Your task to perform on an android device: toggle pop-ups in chrome Image 0: 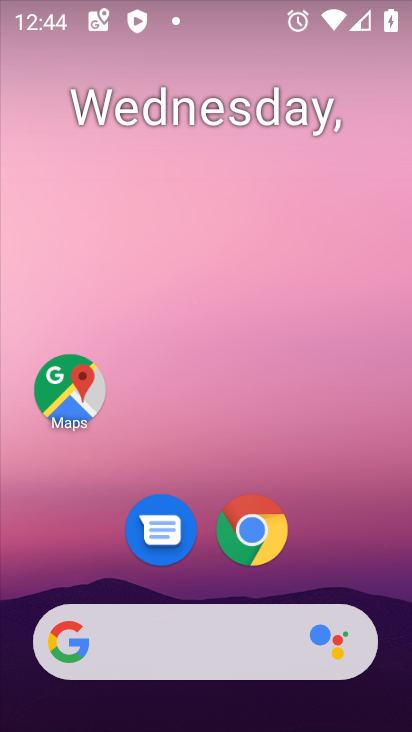
Step 0: click (250, 532)
Your task to perform on an android device: toggle pop-ups in chrome Image 1: 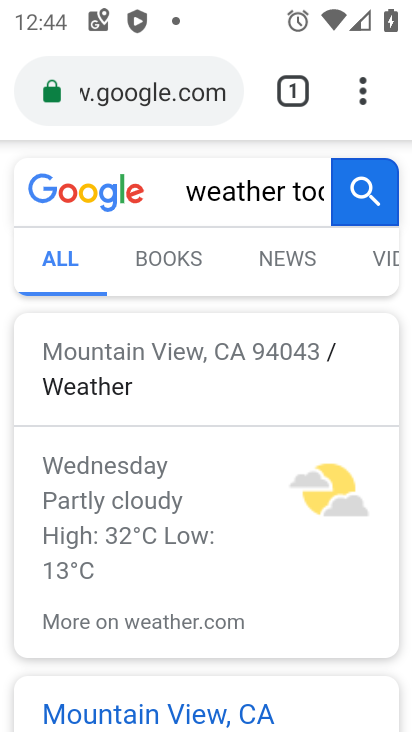
Step 1: click (362, 83)
Your task to perform on an android device: toggle pop-ups in chrome Image 2: 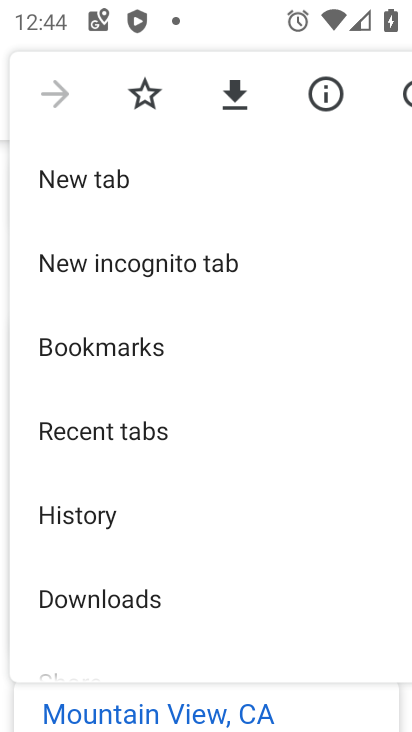
Step 2: drag from (115, 617) to (204, 227)
Your task to perform on an android device: toggle pop-ups in chrome Image 3: 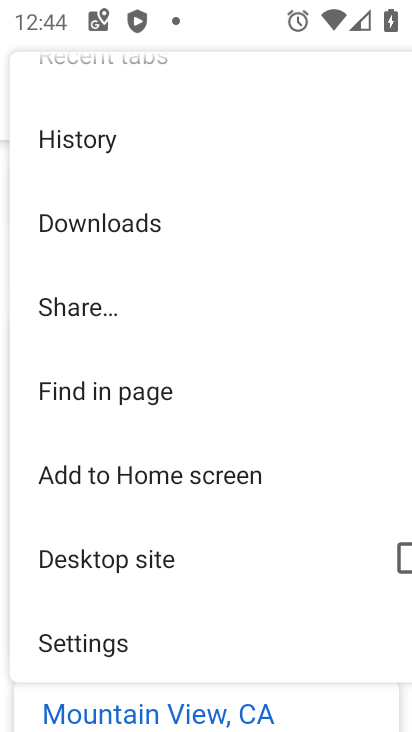
Step 3: drag from (106, 576) to (163, 282)
Your task to perform on an android device: toggle pop-ups in chrome Image 4: 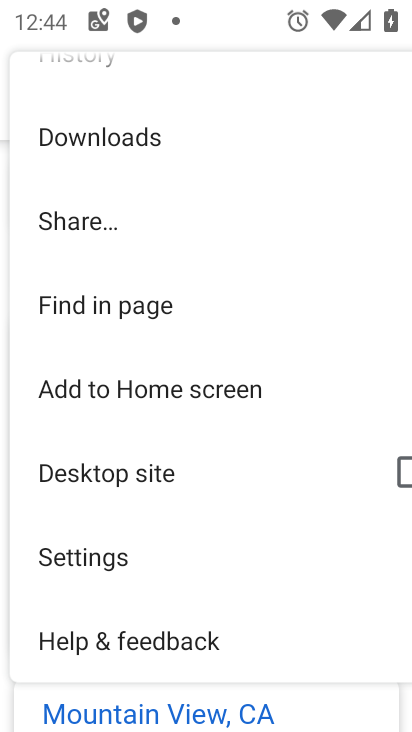
Step 4: click (93, 559)
Your task to perform on an android device: toggle pop-ups in chrome Image 5: 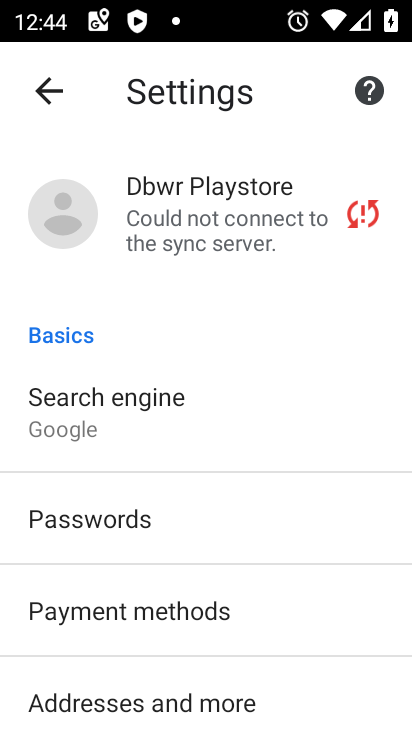
Step 5: drag from (175, 650) to (268, 161)
Your task to perform on an android device: toggle pop-ups in chrome Image 6: 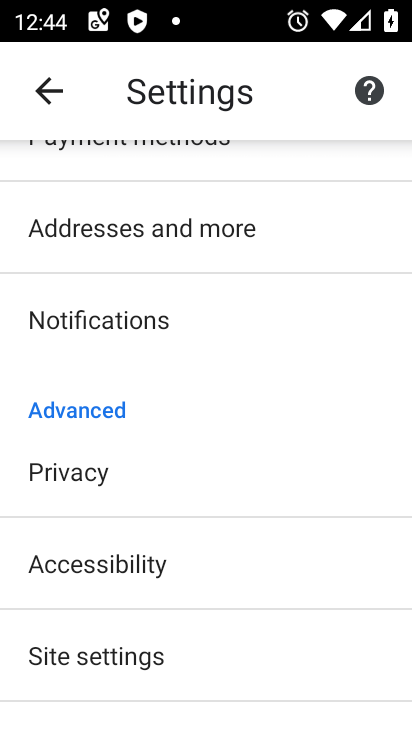
Step 6: drag from (151, 541) to (244, 209)
Your task to perform on an android device: toggle pop-ups in chrome Image 7: 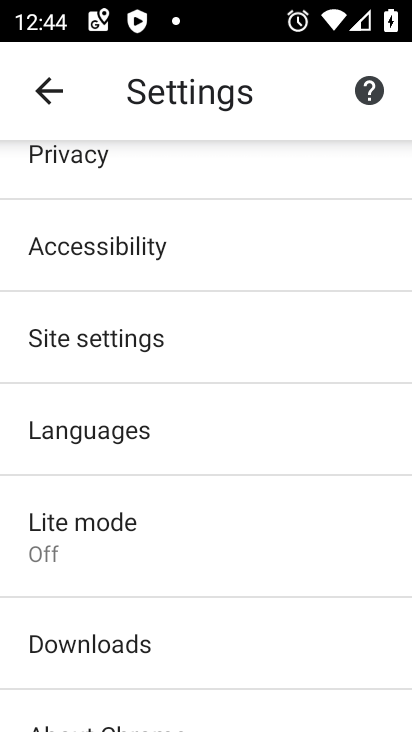
Step 7: click (126, 335)
Your task to perform on an android device: toggle pop-ups in chrome Image 8: 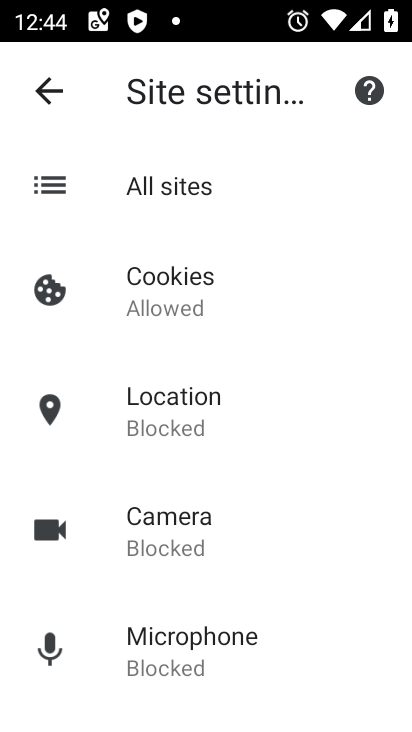
Step 8: drag from (179, 615) to (265, 197)
Your task to perform on an android device: toggle pop-ups in chrome Image 9: 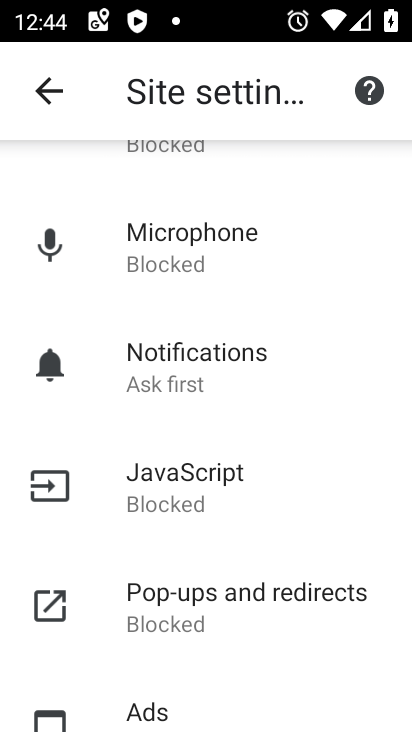
Step 9: click (209, 599)
Your task to perform on an android device: toggle pop-ups in chrome Image 10: 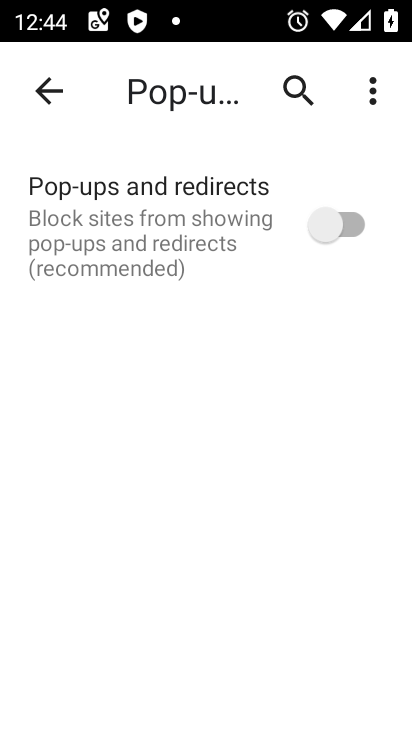
Step 10: click (346, 217)
Your task to perform on an android device: toggle pop-ups in chrome Image 11: 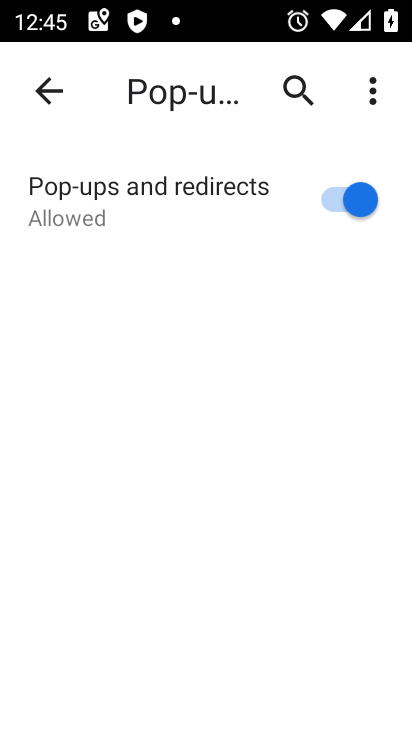
Step 11: task complete